Your task to perform on an android device: see sites visited before in the chrome app Image 0: 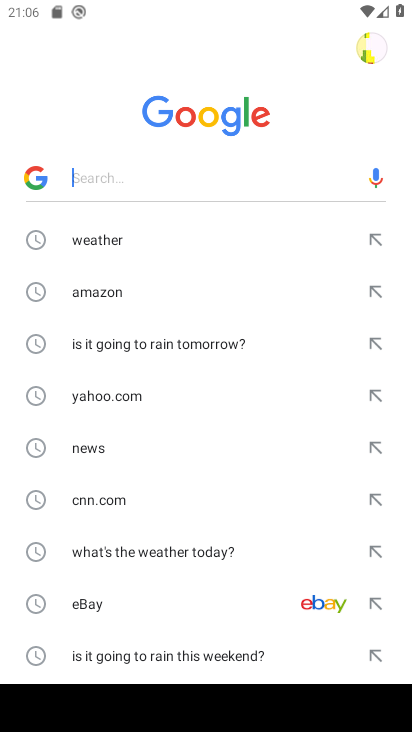
Step 0: press home button
Your task to perform on an android device: see sites visited before in the chrome app Image 1: 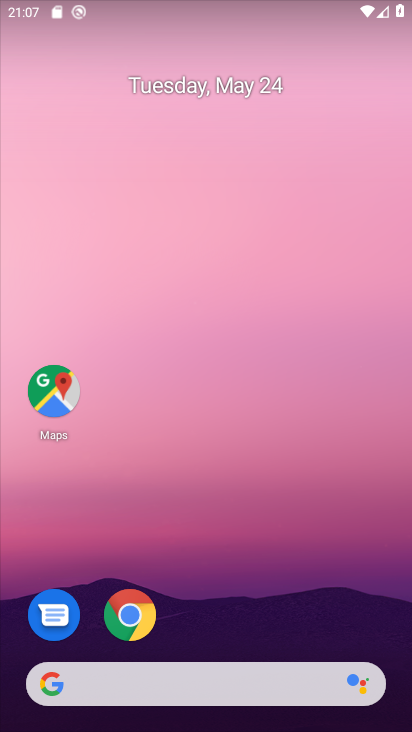
Step 1: drag from (245, 624) to (226, 306)
Your task to perform on an android device: see sites visited before in the chrome app Image 2: 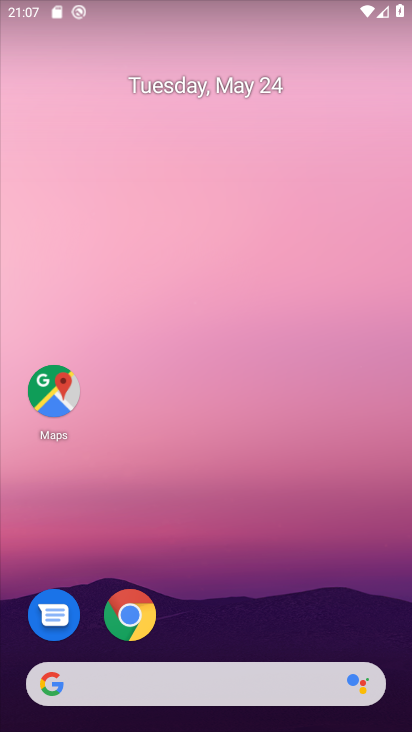
Step 2: click (128, 604)
Your task to perform on an android device: see sites visited before in the chrome app Image 3: 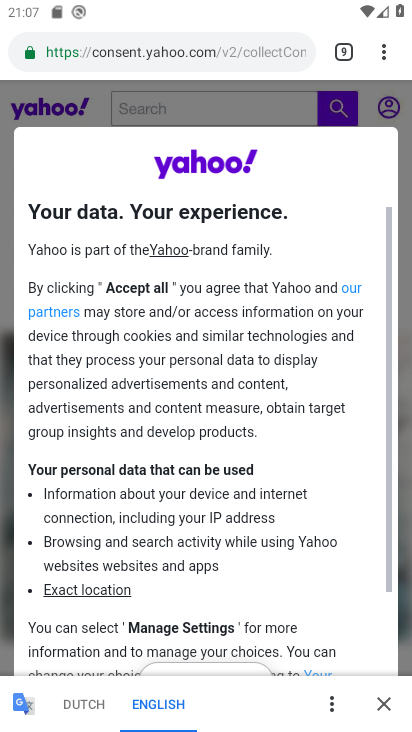
Step 3: click (379, 41)
Your task to perform on an android device: see sites visited before in the chrome app Image 4: 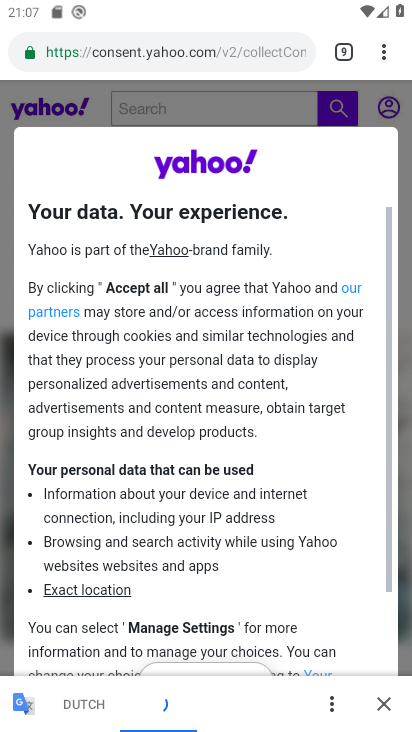
Step 4: click (380, 49)
Your task to perform on an android device: see sites visited before in the chrome app Image 5: 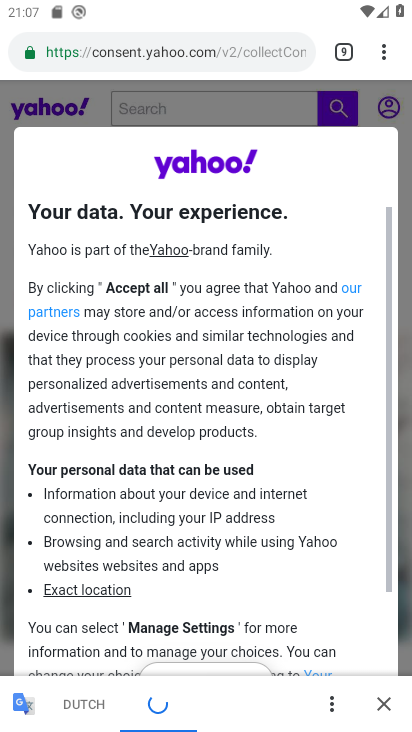
Step 5: click (391, 55)
Your task to perform on an android device: see sites visited before in the chrome app Image 6: 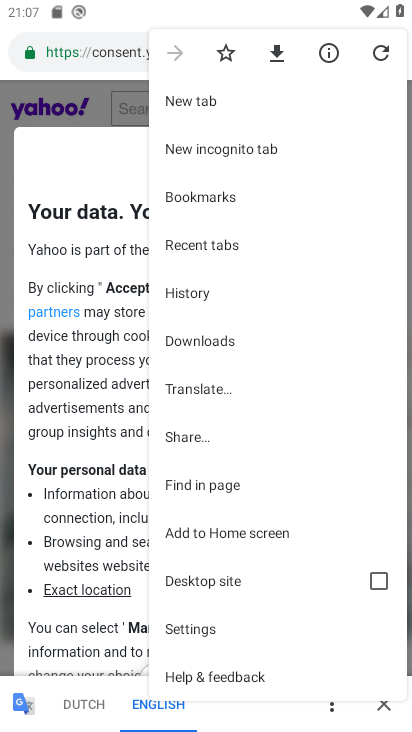
Step 6: drag from (240, 567) to (246, 342)
Your task to perform on an android device: see sites visited before in the chrome app Image 7: 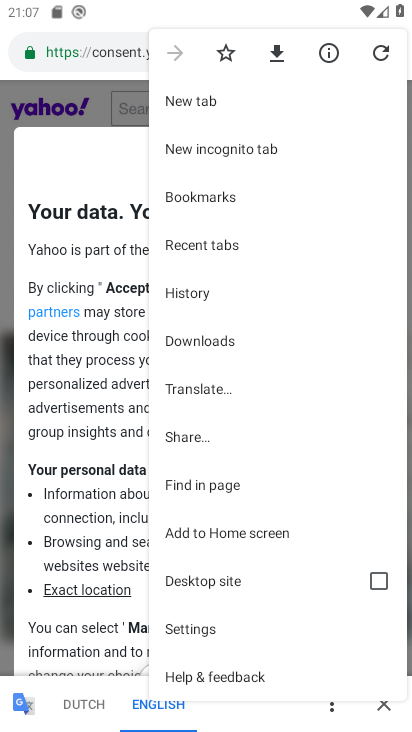
Step 7: click (225, 291)
Your task to perform on an android device: see sites visited before in the chrome app Image 8: 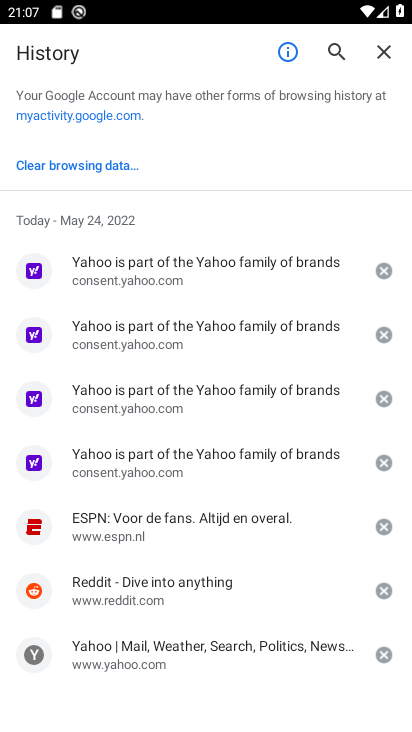
Step 8: task complete